Your task to perform on an android device: Go to Android settings Image 0: 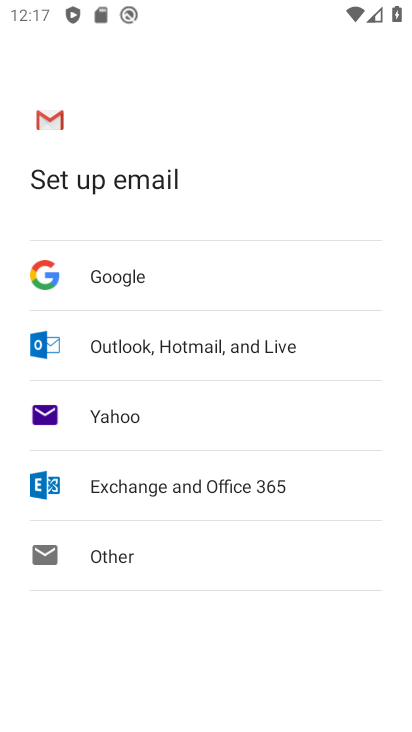
Step 0: press home button
Your task to perform on an android device: Go to Android settings Image 1: 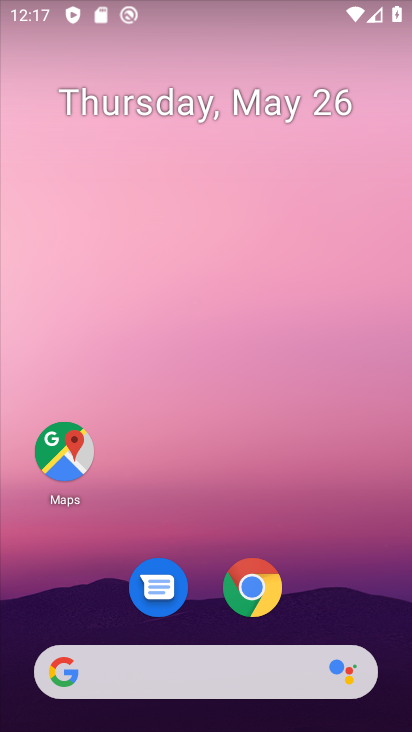
Step 1: drag from (361, 602) to (383, 260)
Your task to perform on an android device: Go to Android settings Image 2: 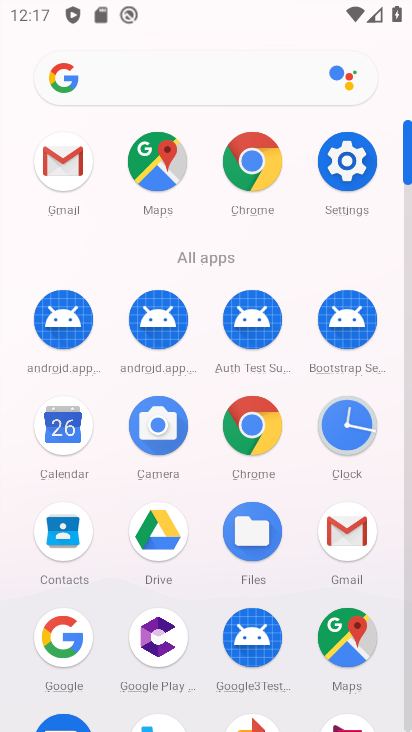
Step 2: click (351, 176)
Your task to perform on an android device: Go to Android settings Image 3: 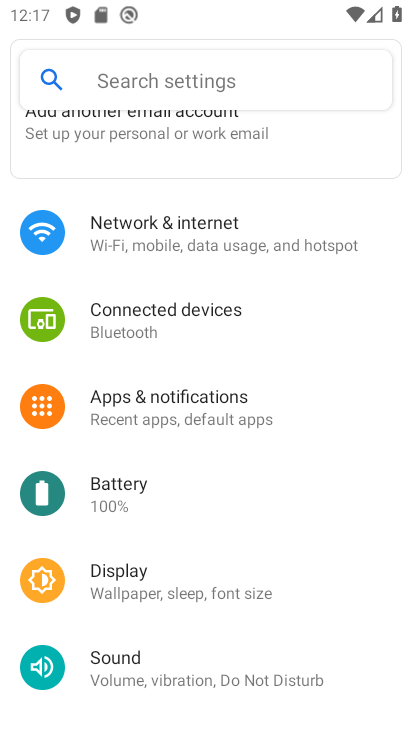
Step 3: drag from (367, 477) to (375, 396)
Your task to perform on an android device: Go to Android settings Image 4: 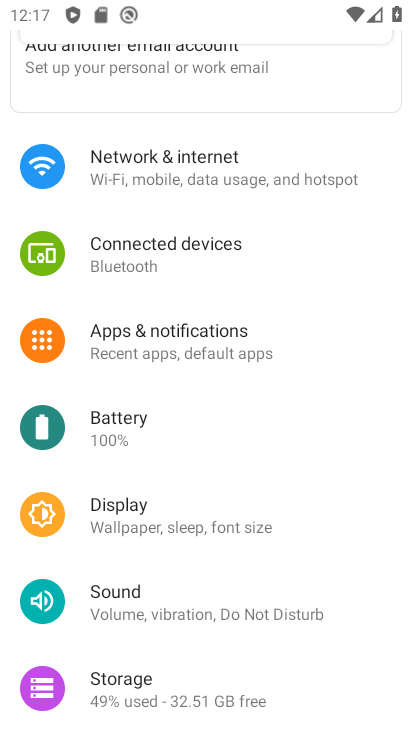
Step 4: drag from (380, 497) to (370, 425)
Your task to perform on an android device: Go to Android settings Image 5: 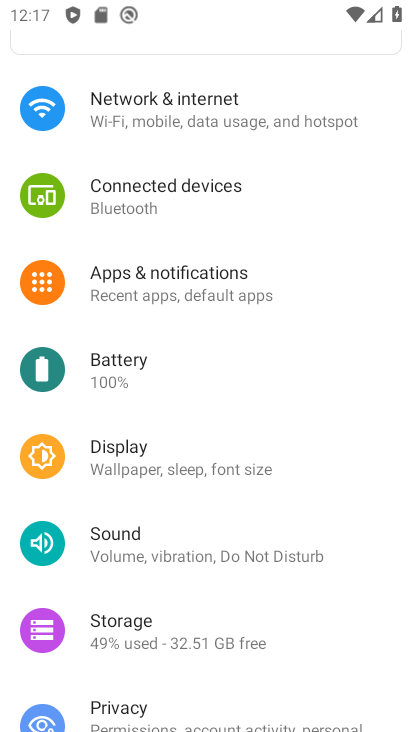
Step 5: drag from (358, 510) to (379, 431)
Your task to perform on an android device: Go to Android settings Image 6: 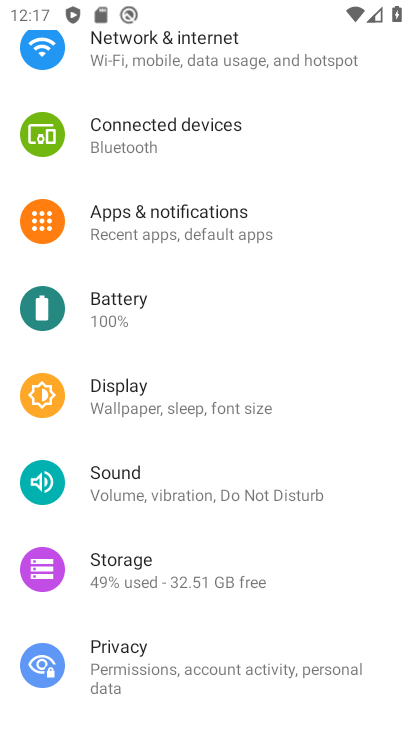
Step 6: drag from (368, 514) to (377, 447)
Your task to perform on an android device: Go to Android settings Image 7: 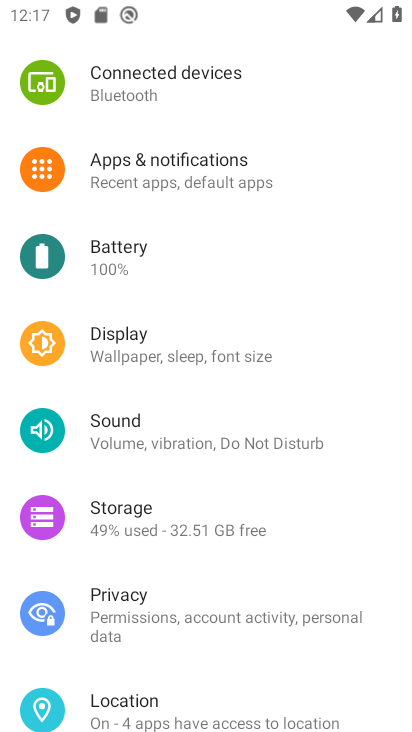
Step 7: drag from (360, 539) to (361, 459)
Your task to perform on an android device: Go to Android settings Image 8: 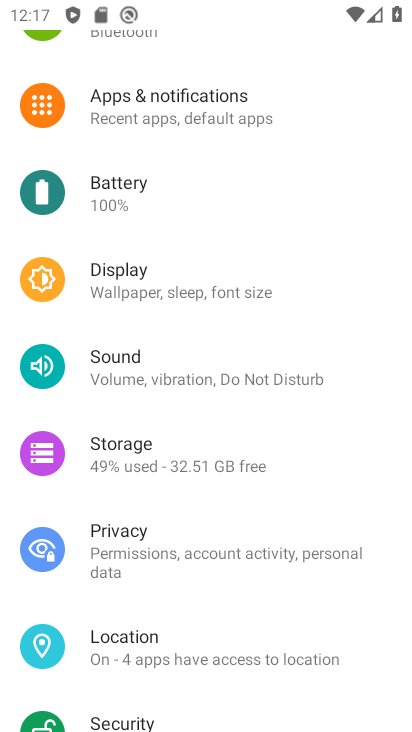
Step 8: drag from (341, 546) to (333, 471)
Your task to perform on an android device: Go to Android settings Image 9: 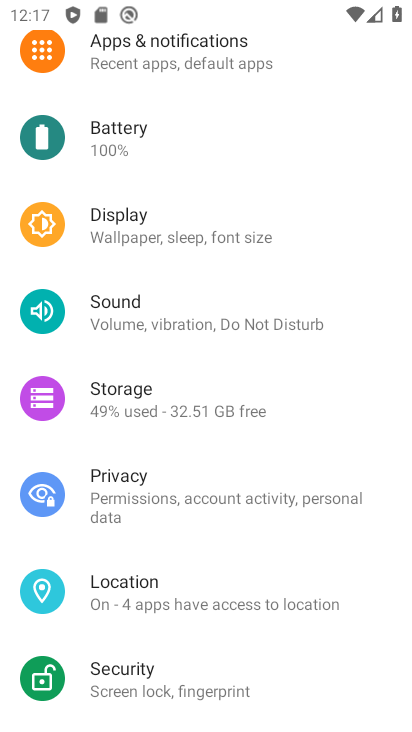
Step 9: drag from (325, 550) to (338, 487)
Your task to perform on an android device: Go to Android settings Image 10: 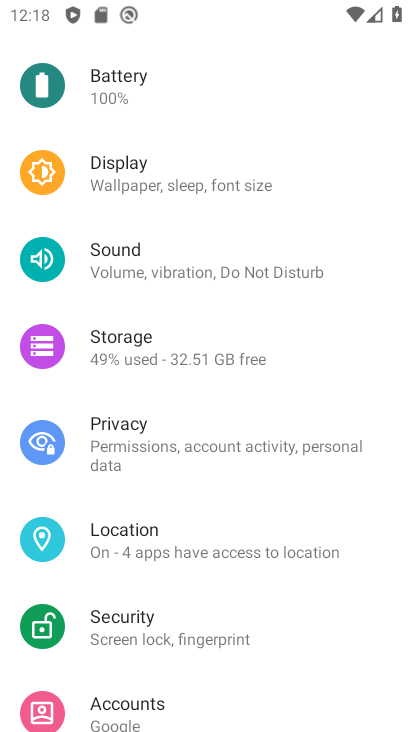
Step 10: drag from (327, 589) to (320, 538)
Your task to perform on an android device: Go to Android settings Image 11: 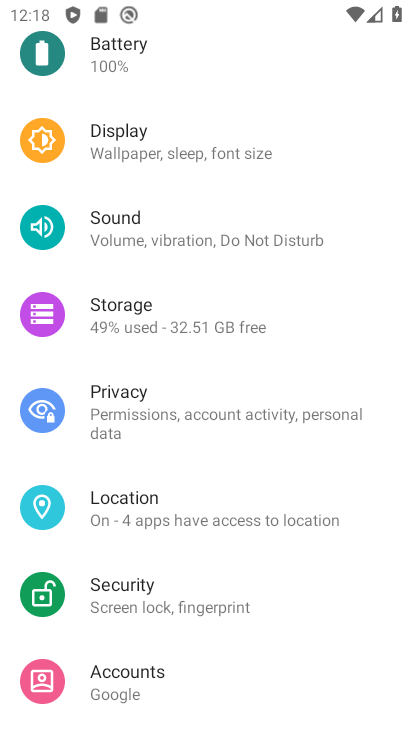
Step 11: drag from (310, 593) to (312, 543)
Your task to perform on an android device: Go to Android settings Image 12: 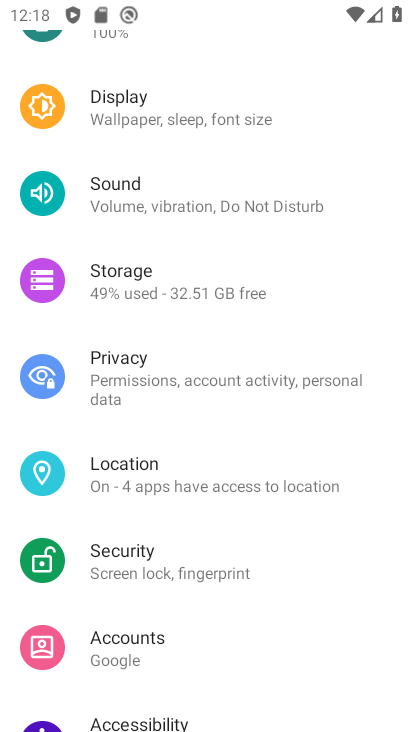
Step 12: drag from (358, 611) to (362, 546)
Your task to perform on an android device: Go to Android settings Image 13: 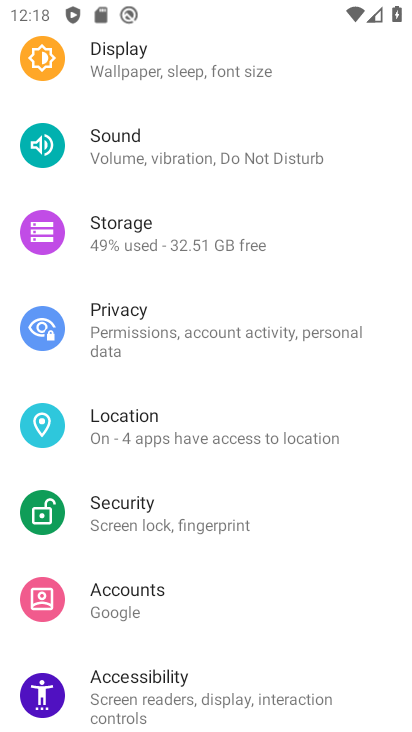
Step 13: drag from (369, 607) to (369, 538)
Your task to perform on an android device: Go to Android settings Image 14: 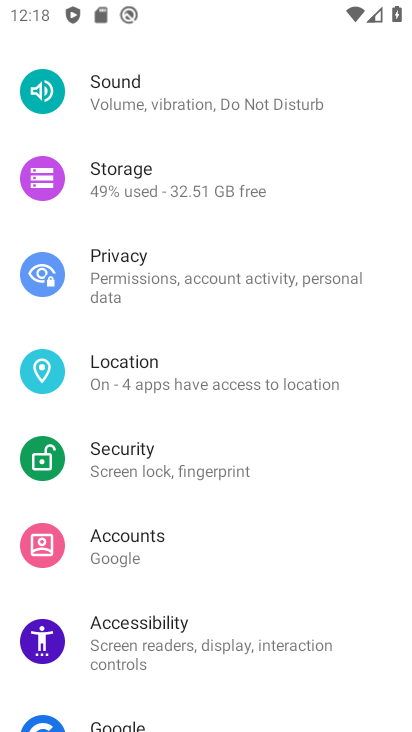
Step 14: drag from (383, 616) to (362, 509)
Your task to perform on an android device: Go to Android settings Image 15: 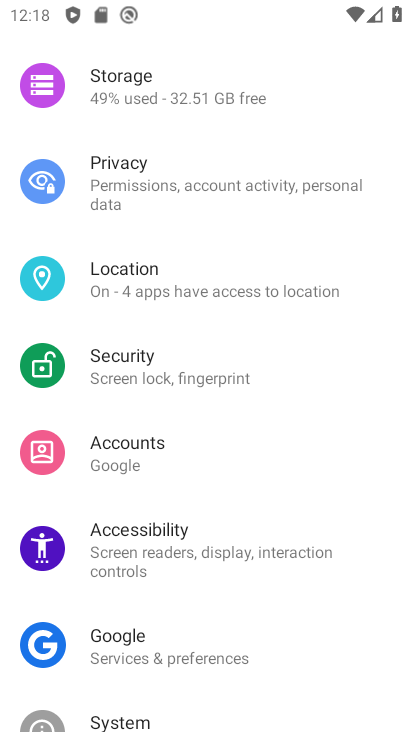
Step 15: drag from (358, 627) to (365, 495)
Your task to perform on an android device: Go to Android settings Image 16: 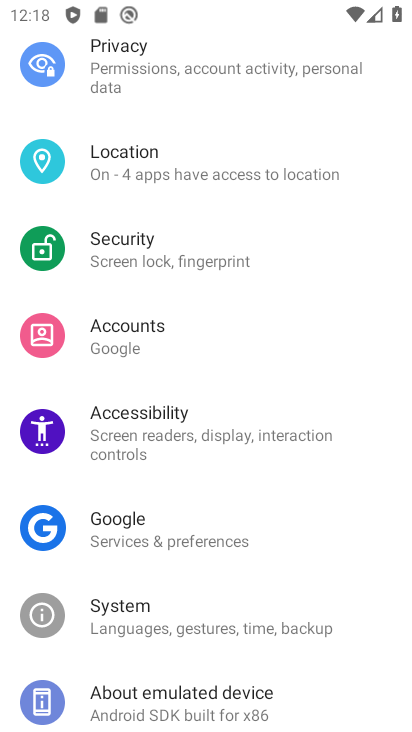
Step 16: drag from (350, 591) to (360, 495)
Your task to perform on an android device: Go to Android settings Image 17: 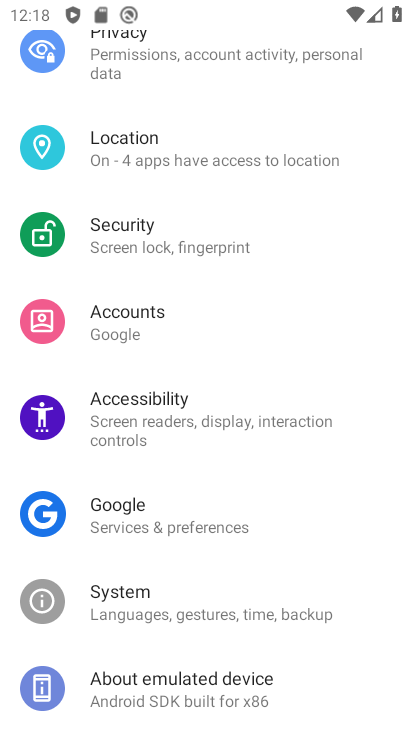
Step 17: click (267, 613)
Your task to perform on an android device: Go to Android settings Image 18: 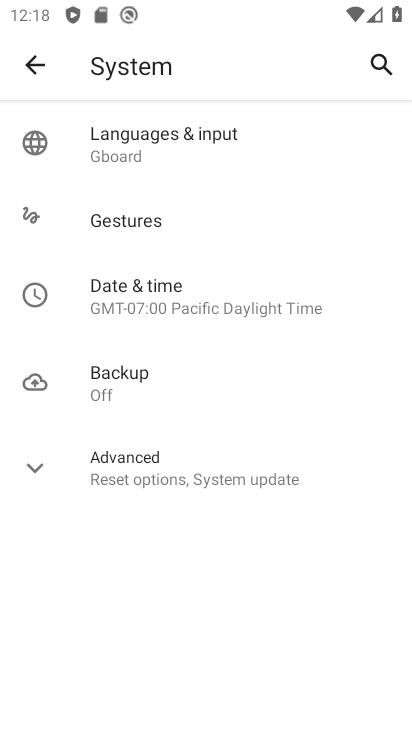
Step 18: click (262, 477)
Your task to perform on an android device: Go to Android settings Image 19: 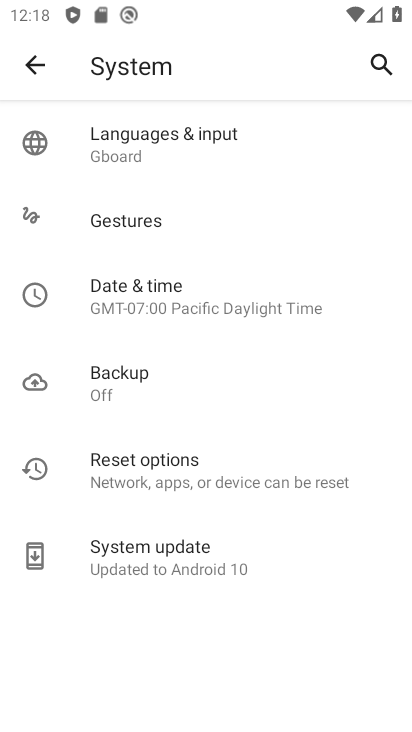
Step 19: task complete